Your task to perform on an android device: toggle sleep mode Image 0: 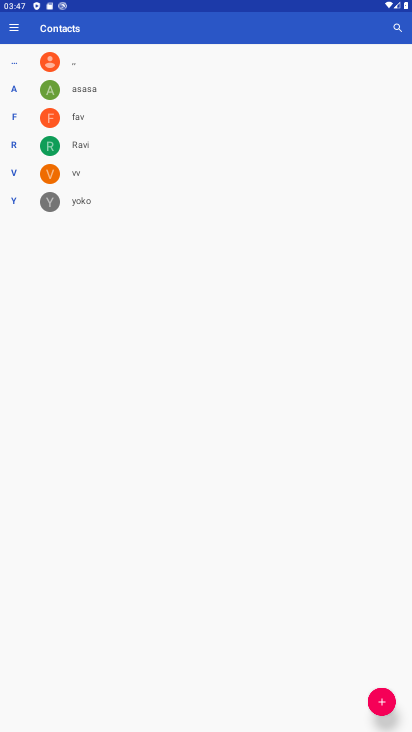
Step 0: press home button
Your task to perform on an android device: toggle sleep mode Image 1: 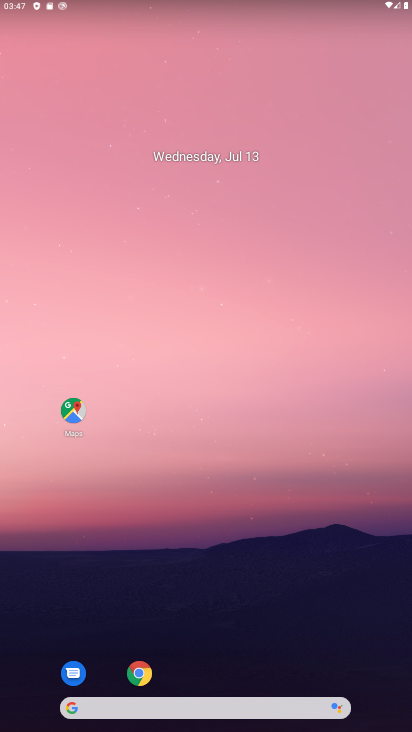
Step 1: drag from (262, 633) to (214, 112)
Your task to perform on an android device: toggle sleep mode Image 2: 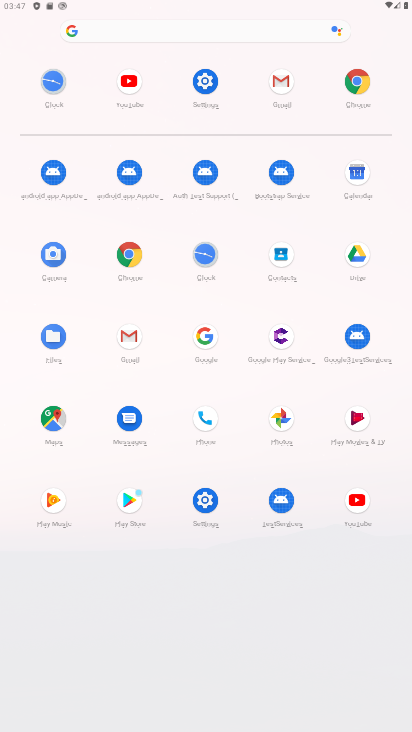
Step 2: click (199, 498)
Your task to perform on an android device: toggle sleep mode Image 3: 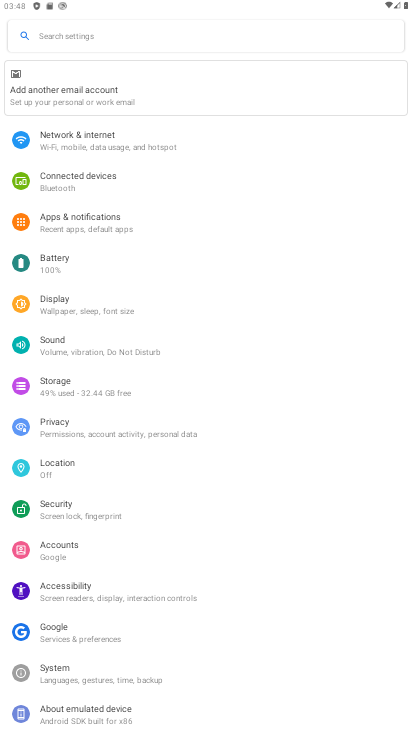
Step 3: click (56, 303)
Your task to perform on an android device: toggle sleep mode Image 4: 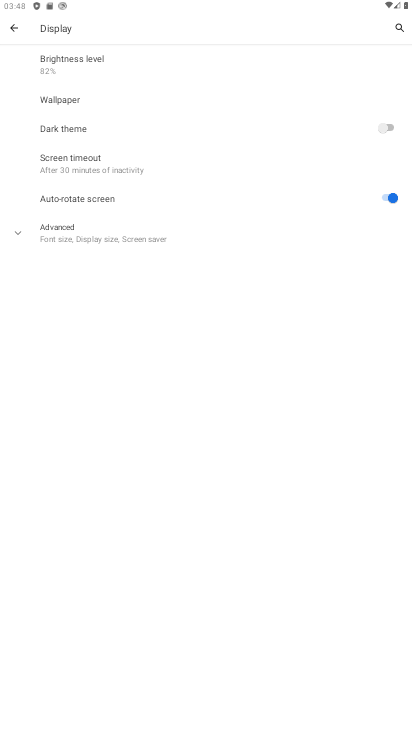
Step 4: click (80, 161)
Your task to perform on an android device: toggle sleep mode Image 5: 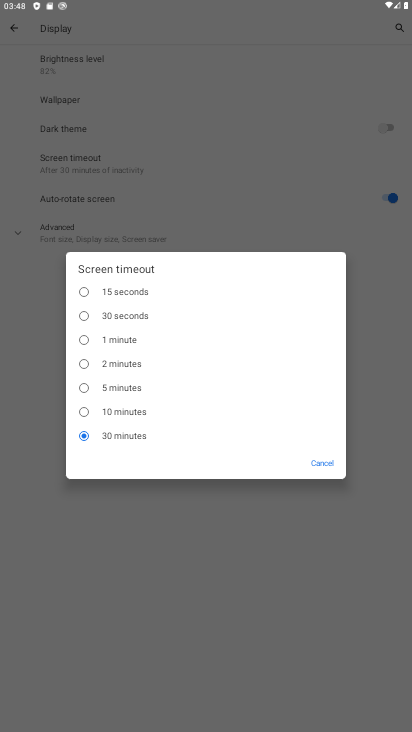
Step 5: click (113, 363)
Your task to perform on an android device: toggle sleep mode Image 6: 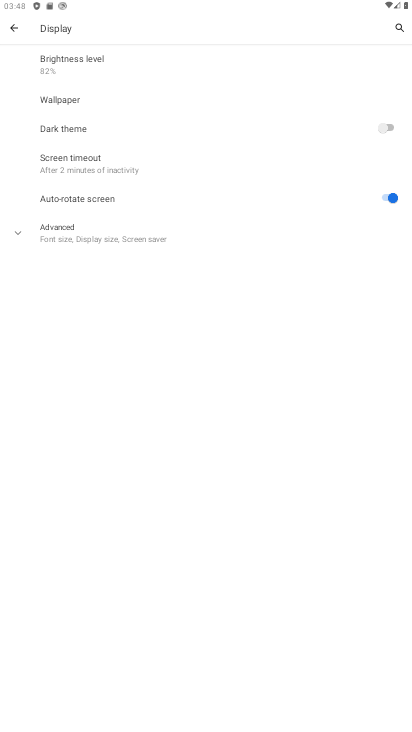
Step 6: task complete